Your task to perform on an android device: turn notification dots off Image 0: 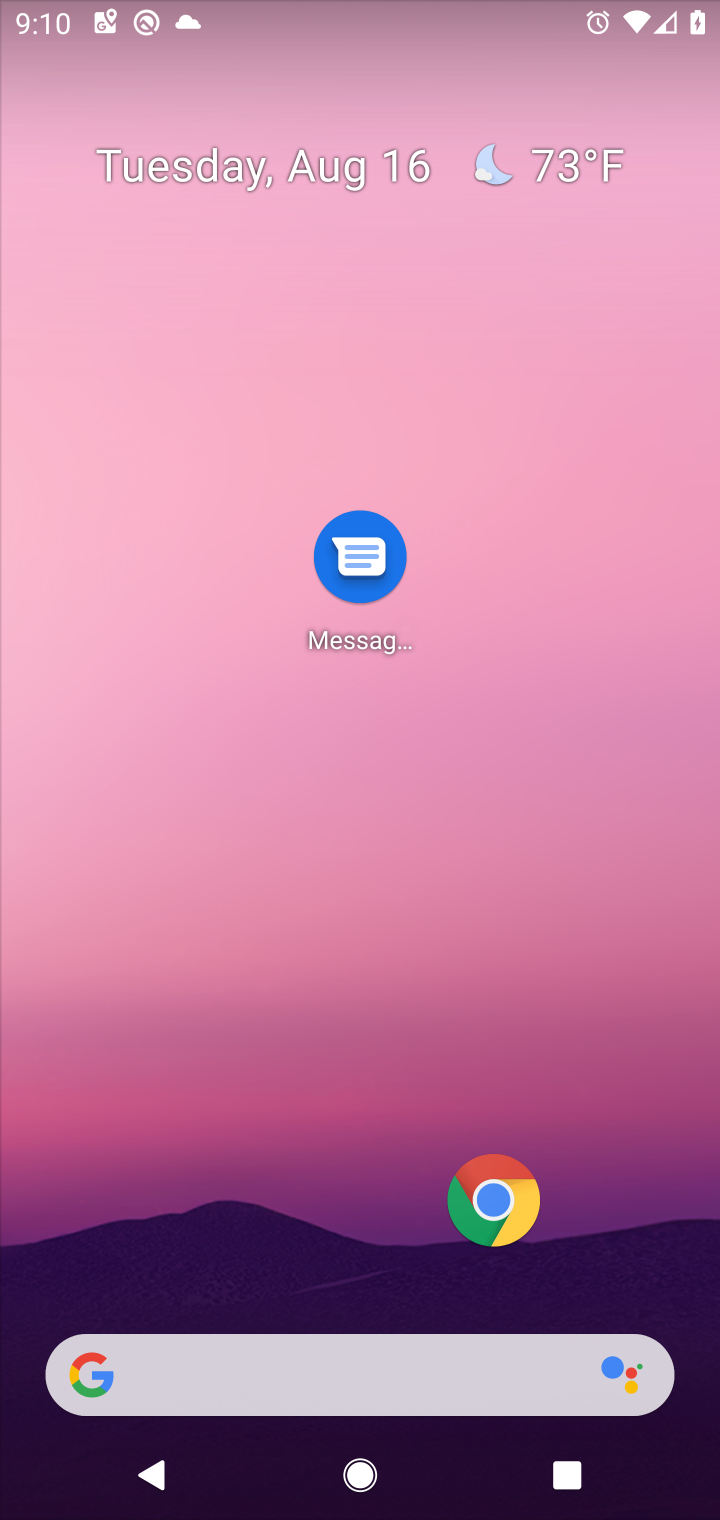
Step 0: drag from (191, 1222) to (308, 584)
Your task to perform on an android device: turn notification dots off Image 1: 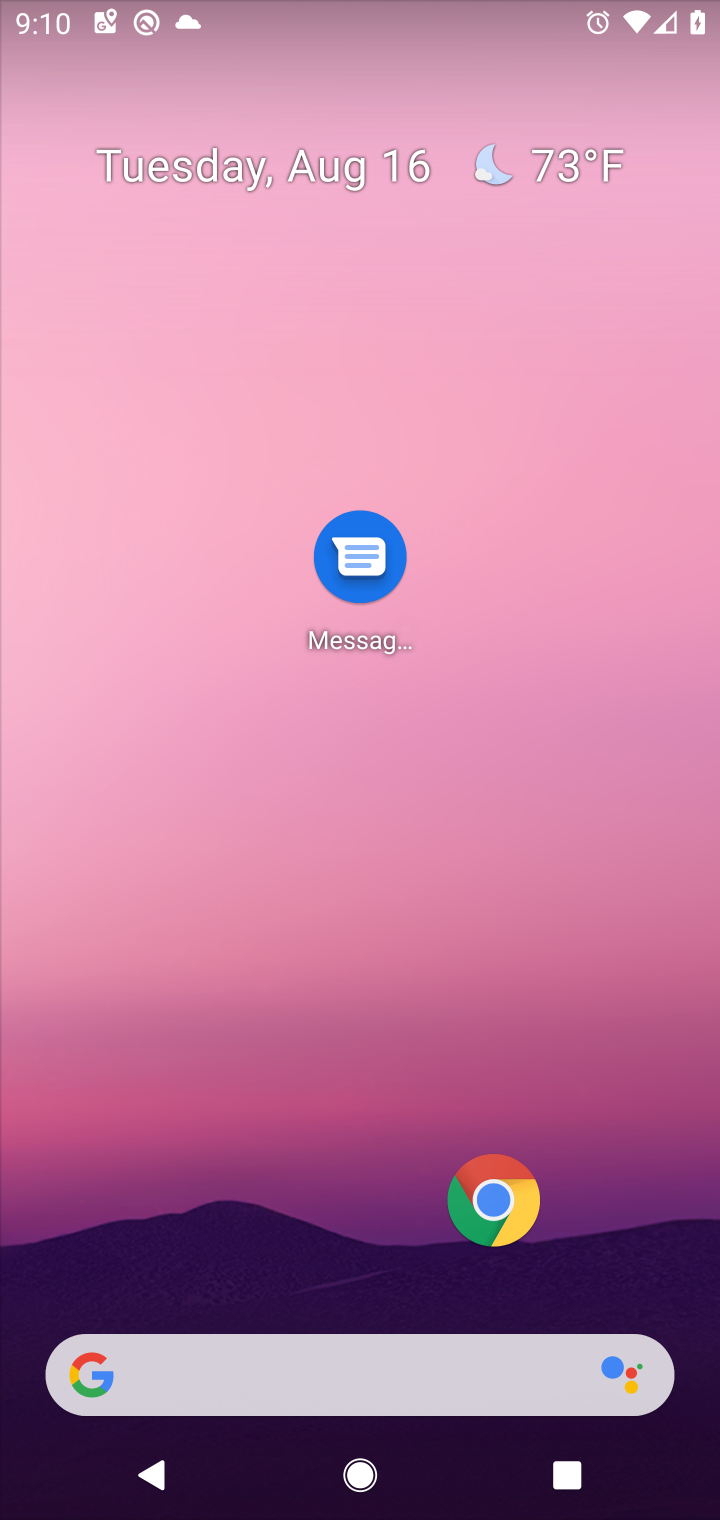
Step 1: drag from (34, 1447) to (167, 481)
Your task to perform on an android device: turn notification dots off Image 2: 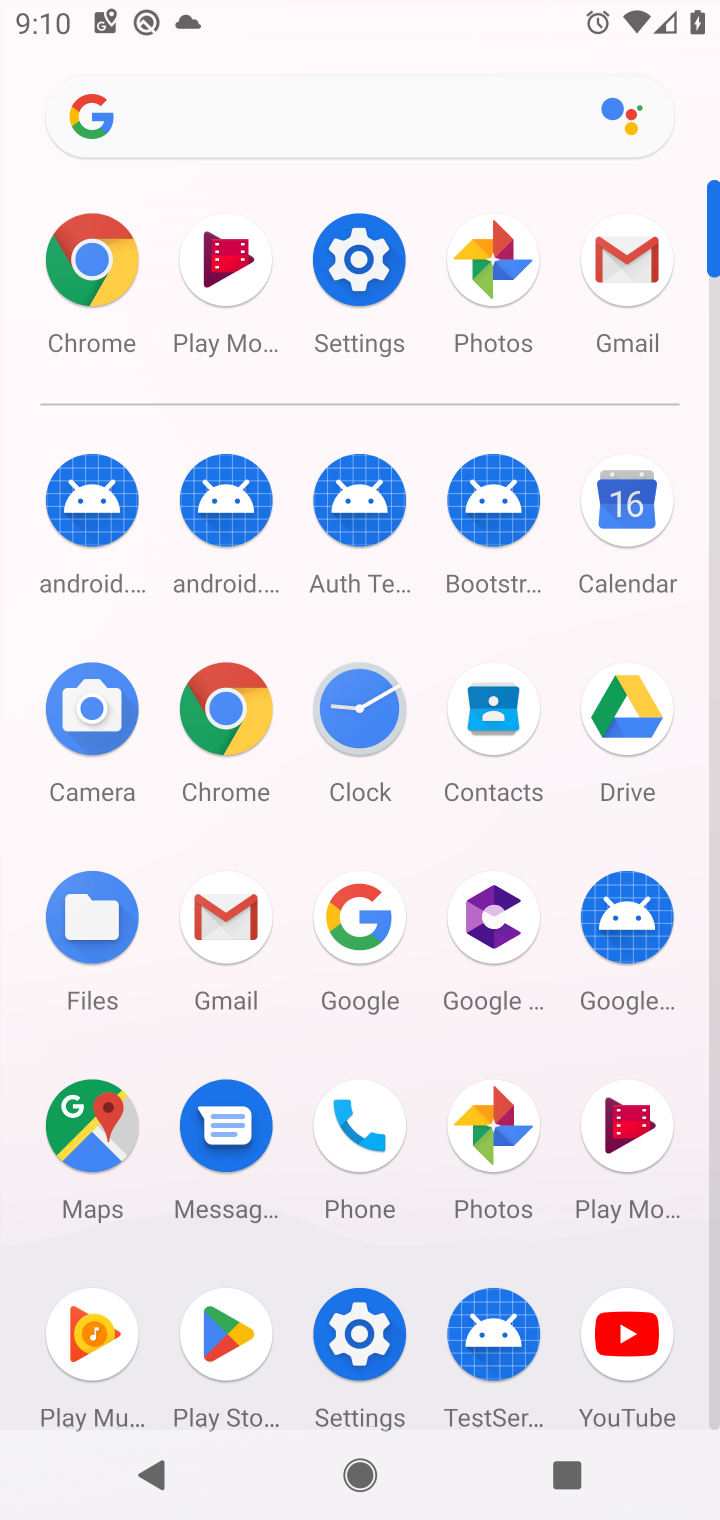
Step 2: click (360, 1331)
Your task to perform on an android device: turn notification dots off Image 3: 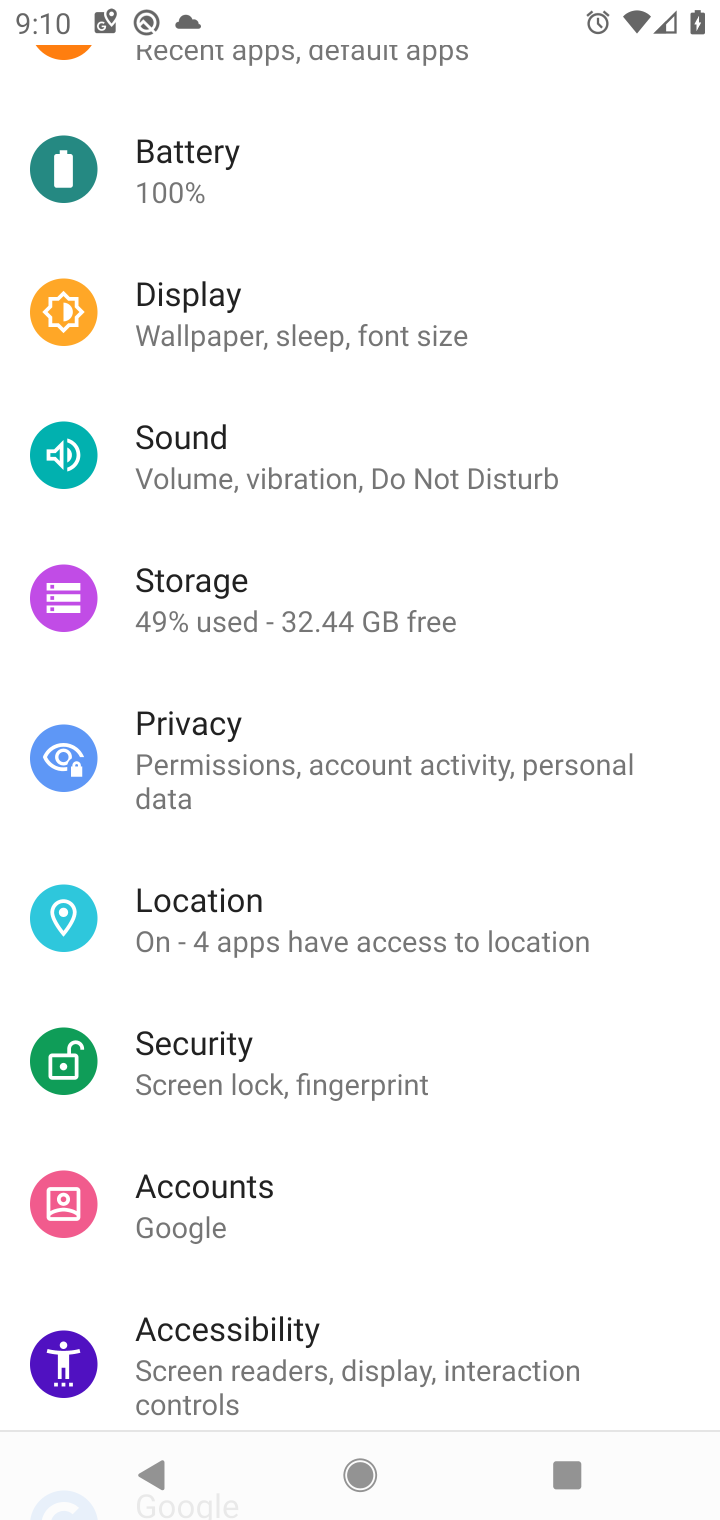
Step 3: drag from (622, 174) to (598, 1165)
Your task to perform on an android device: turn notification dots off Image 4: 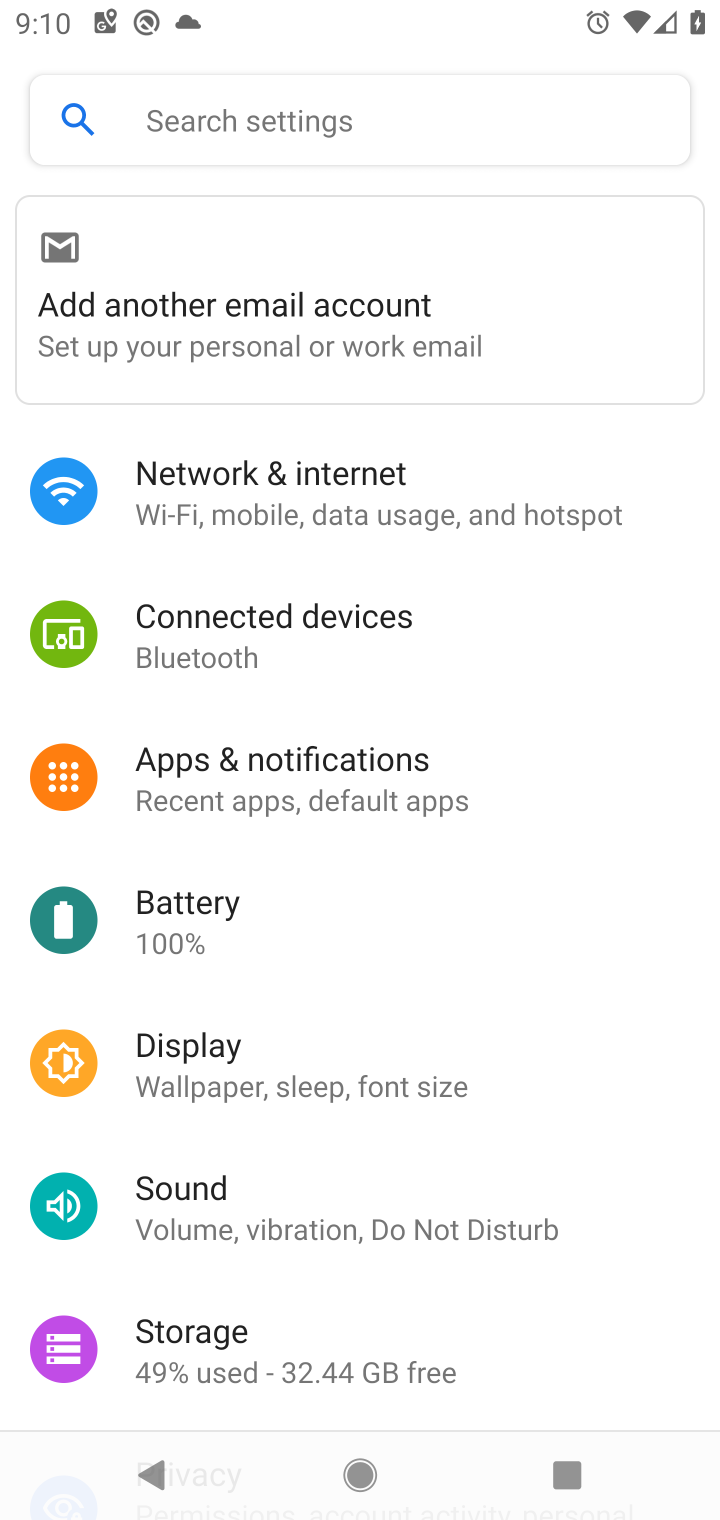
Step 4: drag from (643, 1266) to (476, 519)
Your task to perform on an android device: turn notification dots off Image 5: 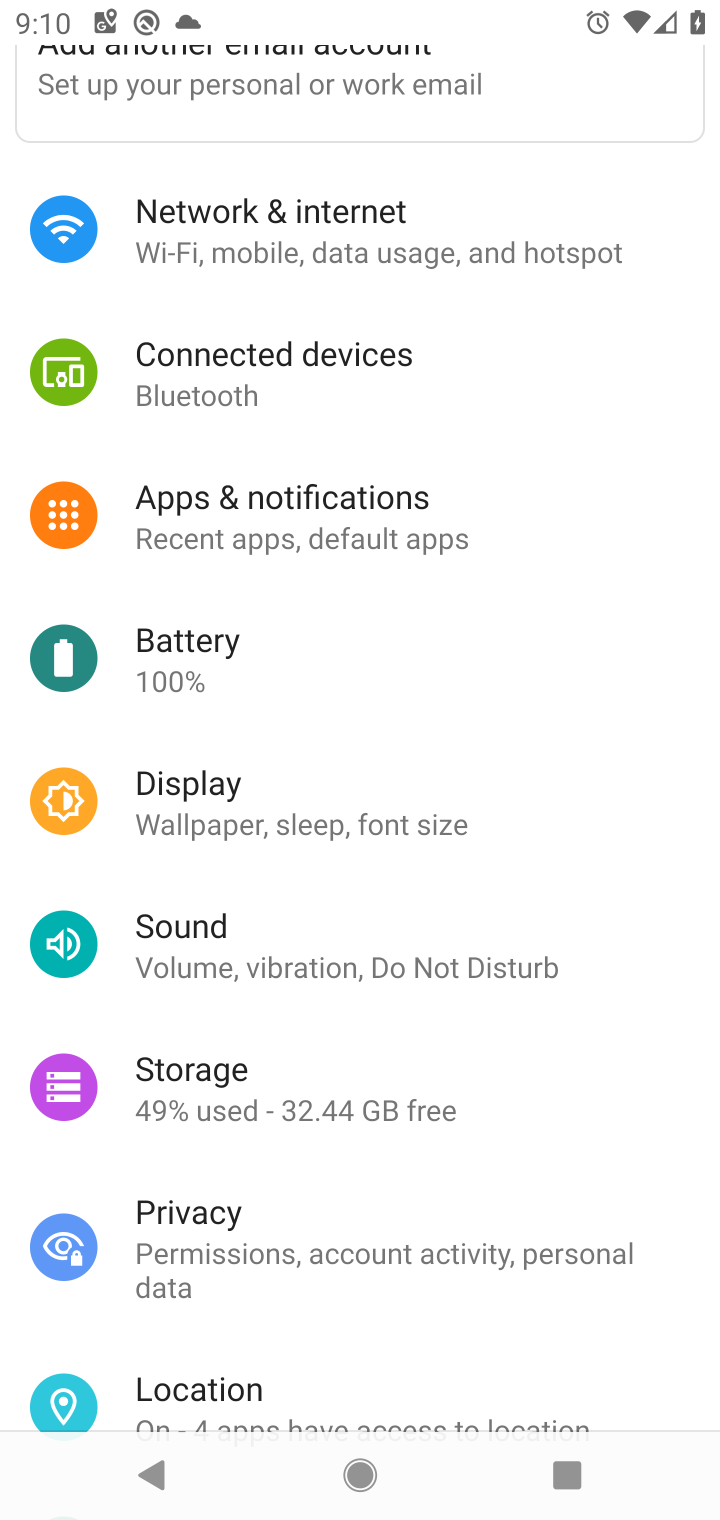
Step 5: drag from (591, 1362) to (708, 618)
Your task to perform on an android device: turn notification dots off Image 6: 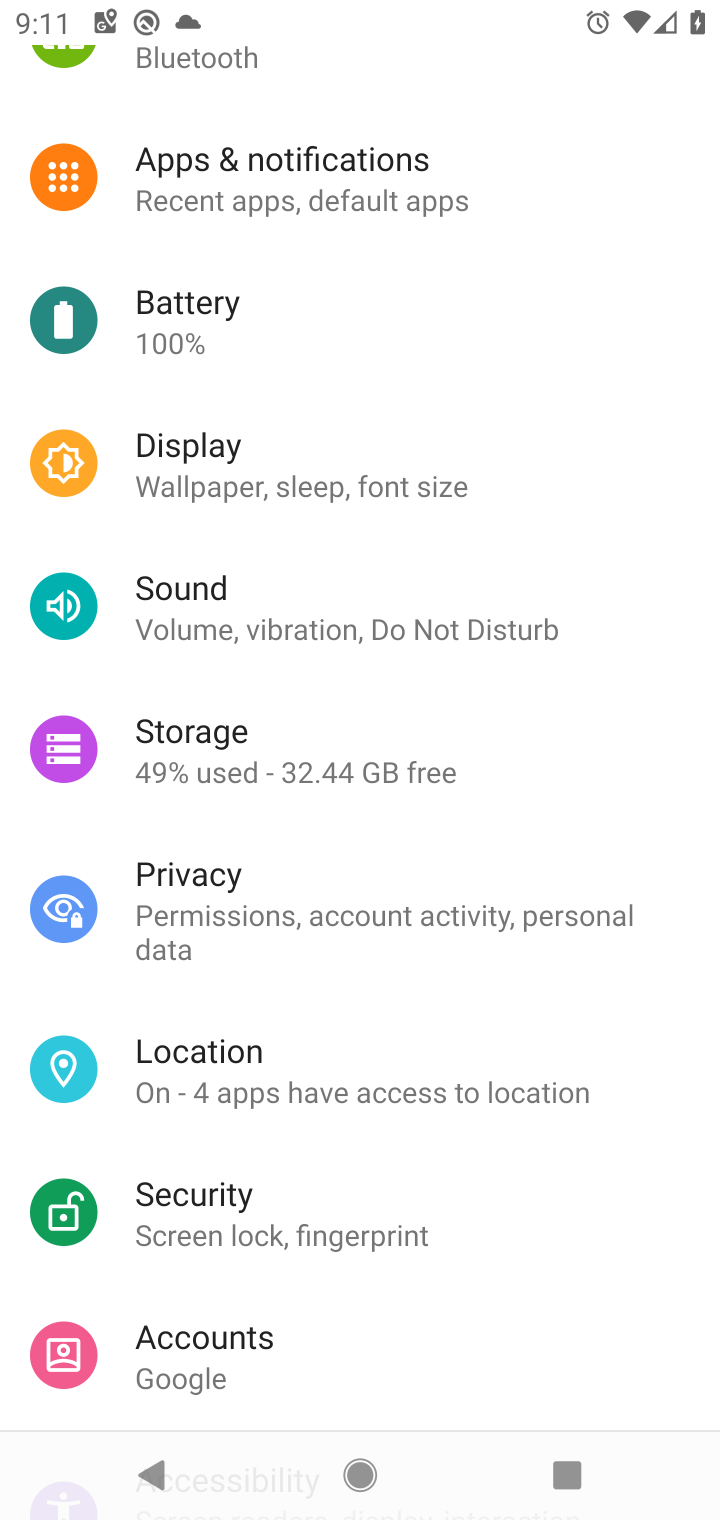
Step 6: click (386, 174)
Your task to perform on an android device: turn notification dots off Image 7: 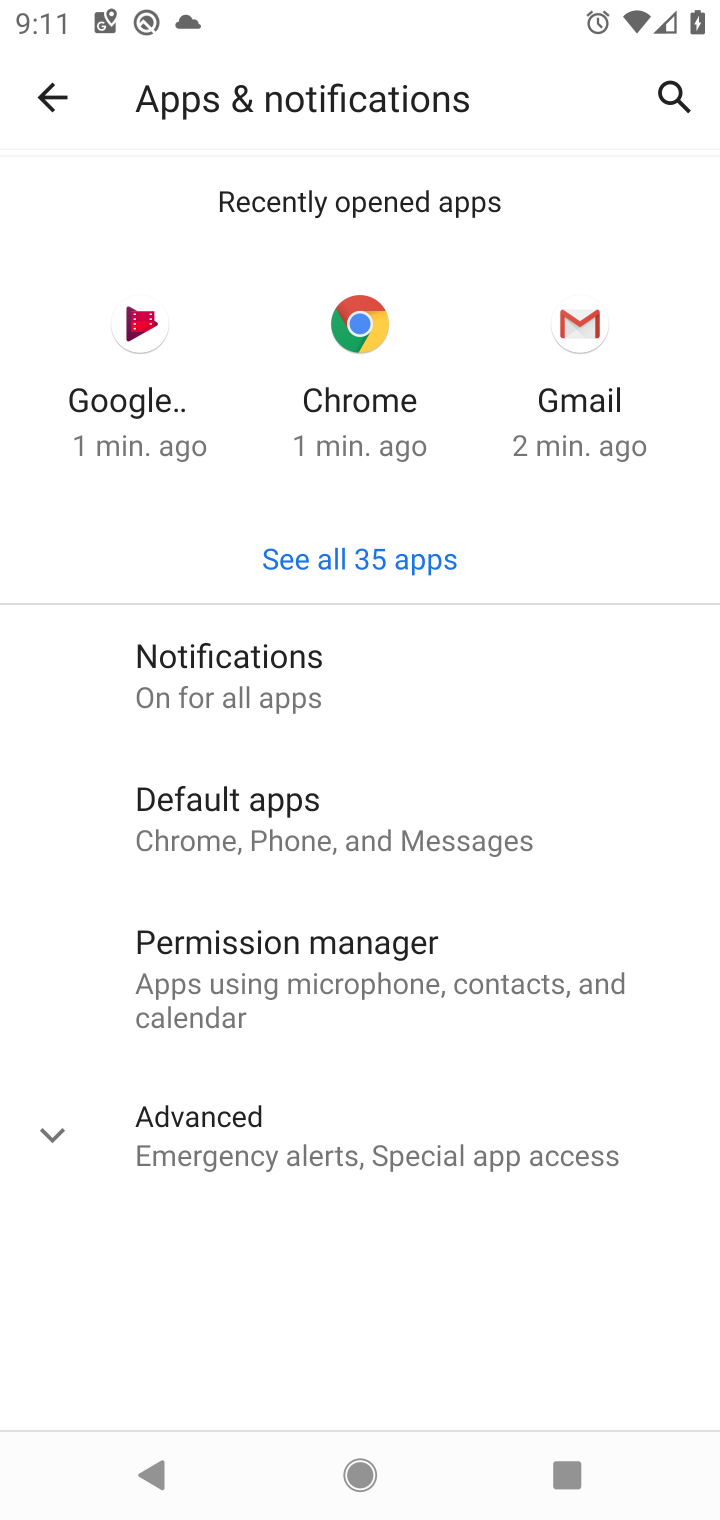
Step 7: click (227, 691)
Your task to perform on an android device: turn notification dots off Image 8: 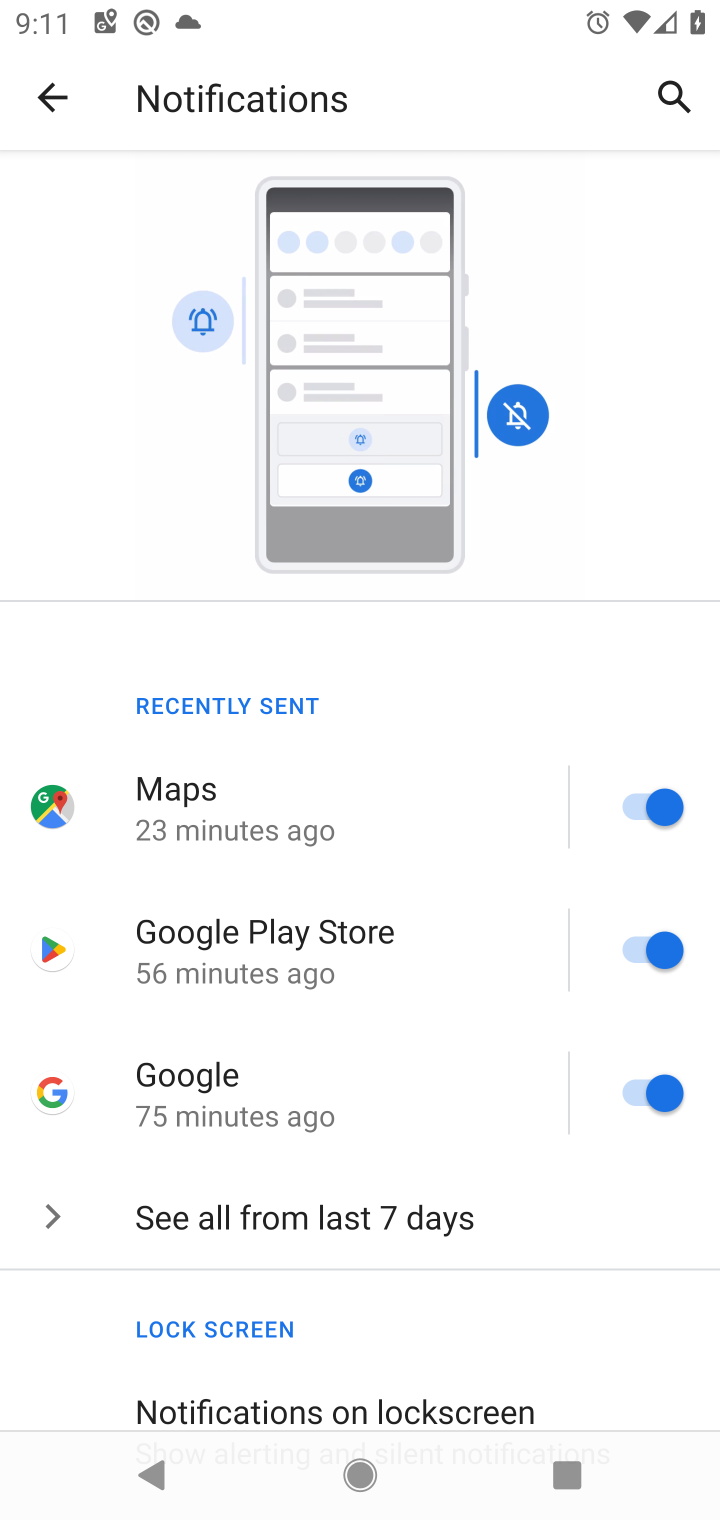
Step 8: drag from (594, 1267) to (594, 664)
Your task to perform on an android device: turn notification dots off Image 9: 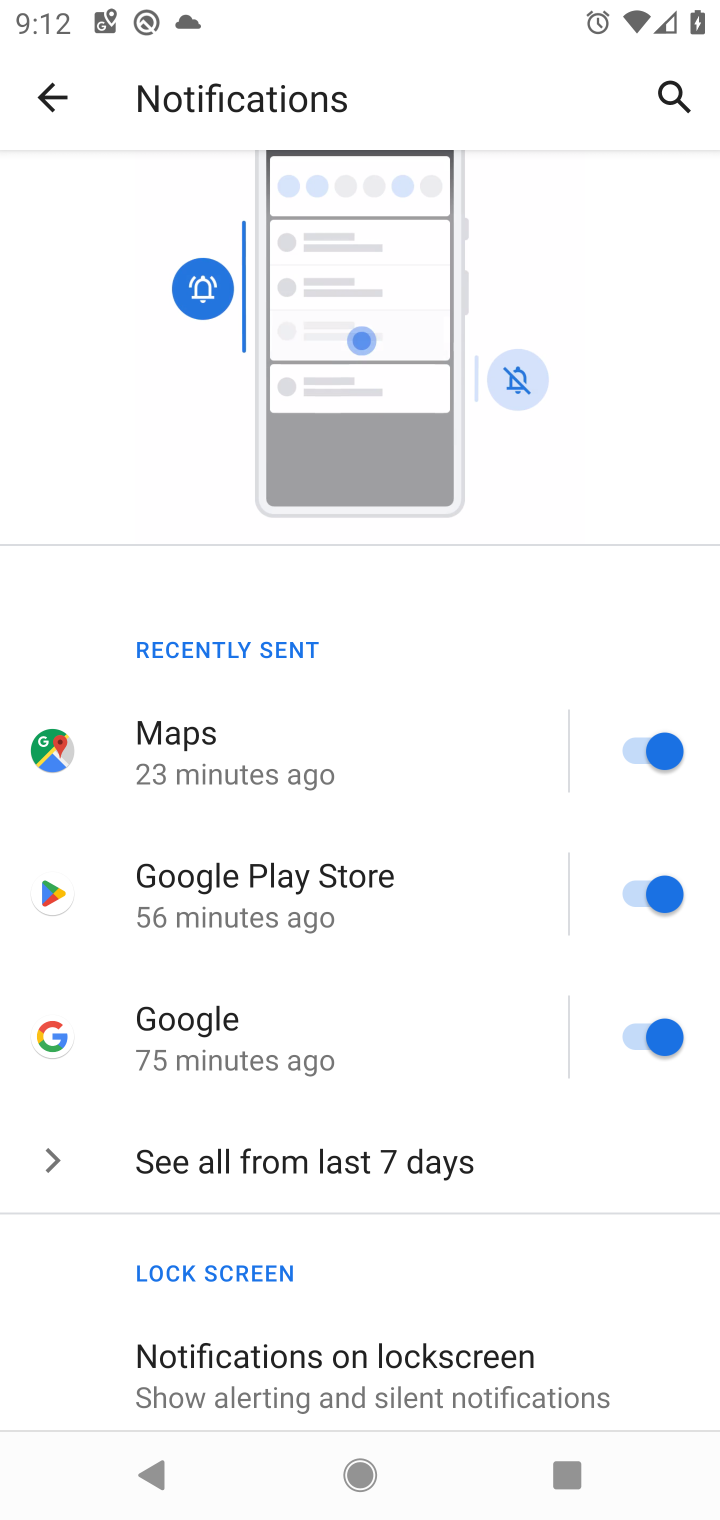
Step 9: drag from (81, 1339) to (22, 541)
Your task to perform on an android device: turn notification dots off Image 10: 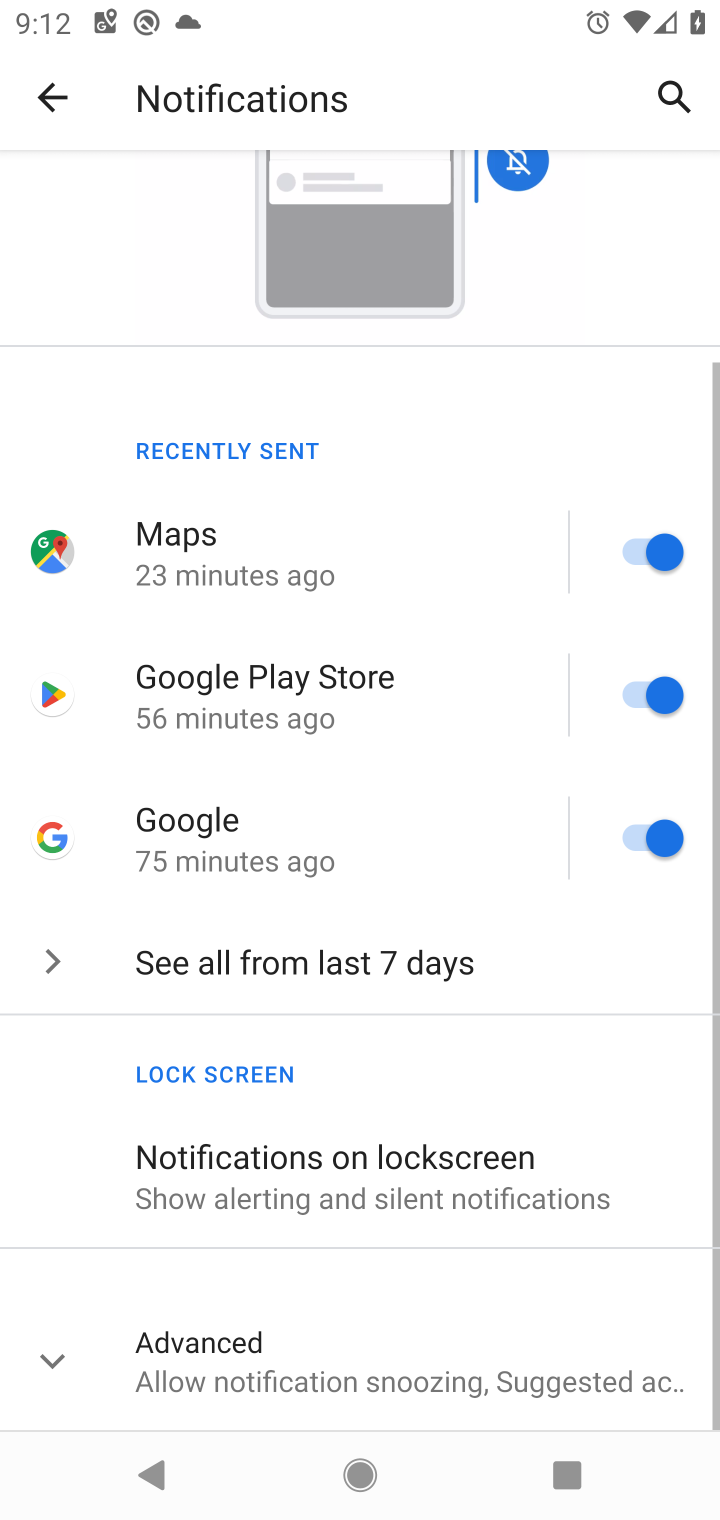
Step 10: click (200, 1336)
Your task to perform on an android device: turn notification dots off Image 11: 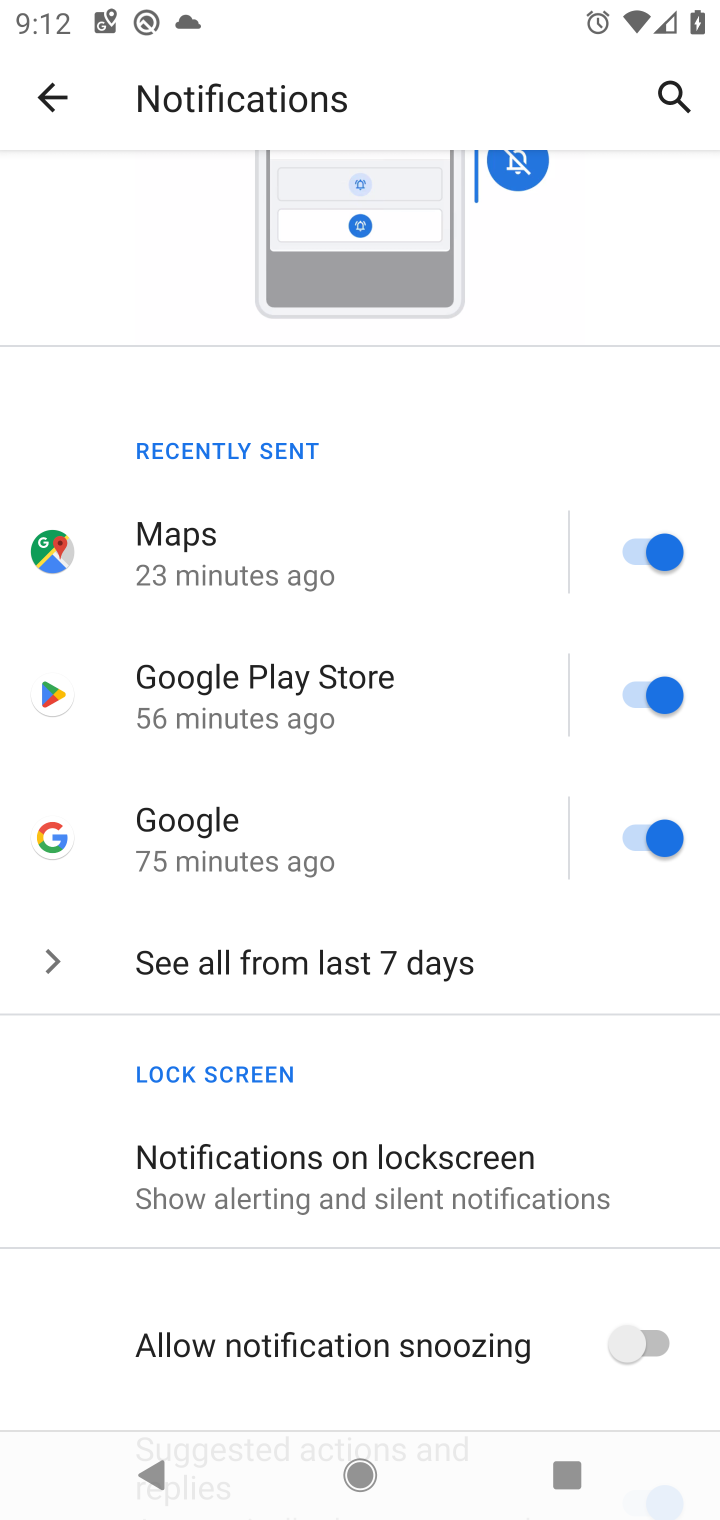
Step 11: drag from (56, 1285) to (334, 368)
Your task to perform on an android device: turn notification dots off Image 12: 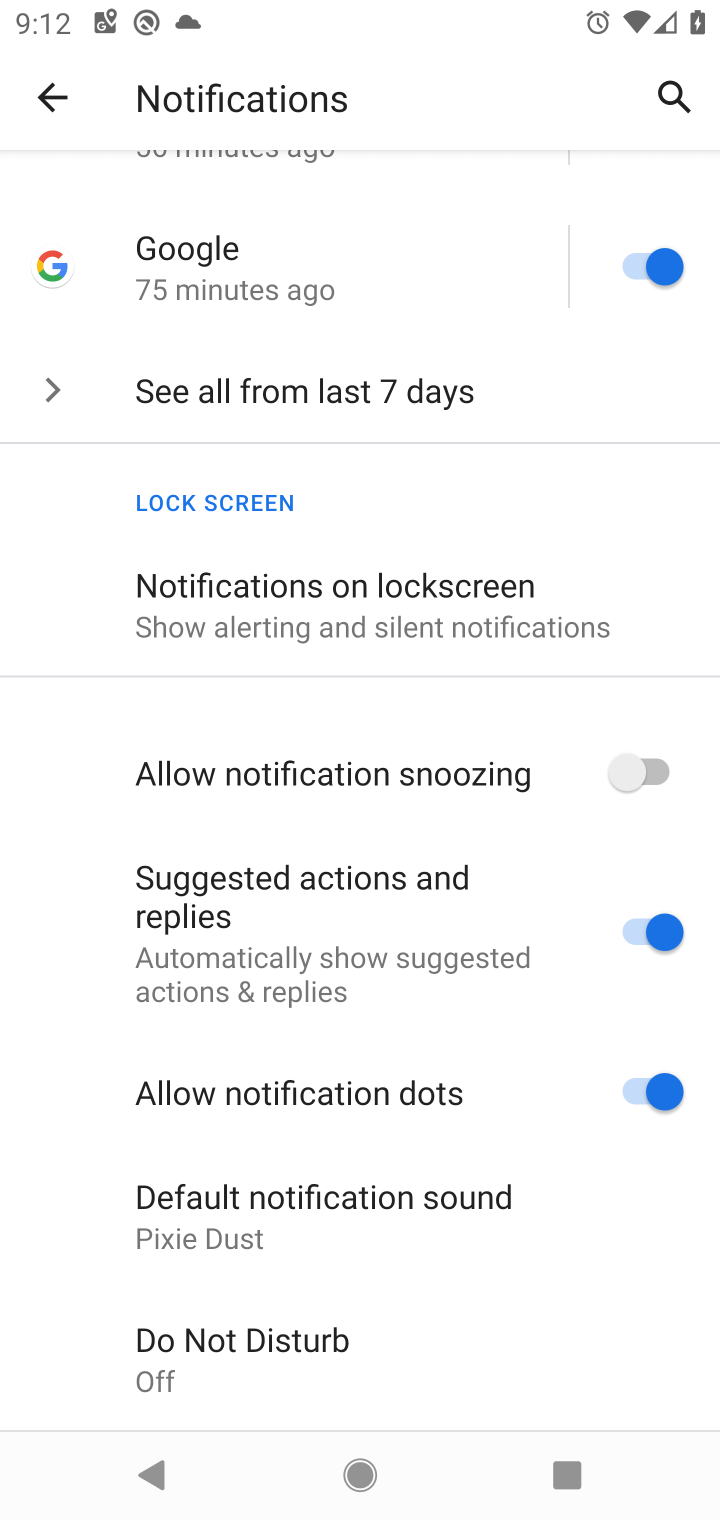
Step 12: click (660, 1100)
Your task to perform on an android device: turn notification dots off Image 13: 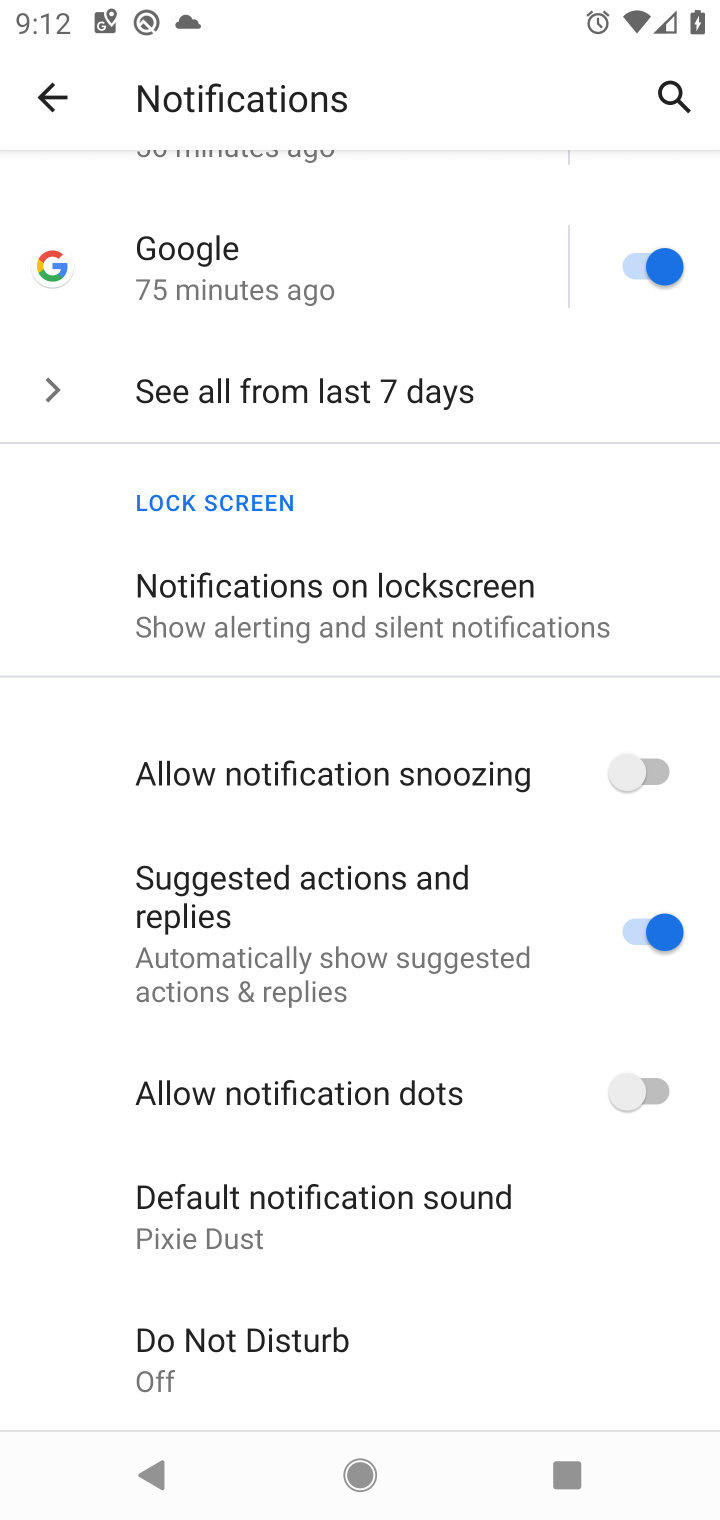
Step 13: task complete